Your task to perform on an android device: Open ESPN.com Image 0: 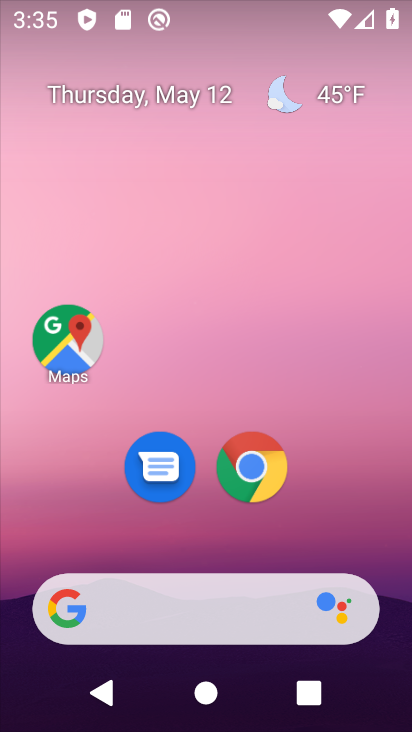
Step 0: click (273, 470)
Your task to perform on an android device: Open ESPN.com Image 1: 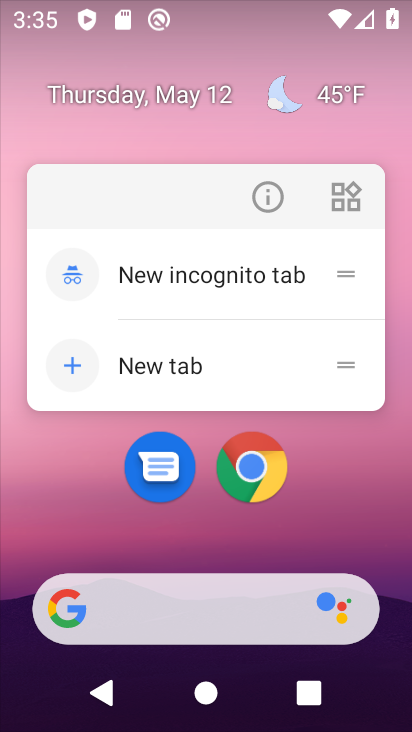
Step 1: click (269, 470)
Your task to perform on an android device: Open ESPN.com Image 2: 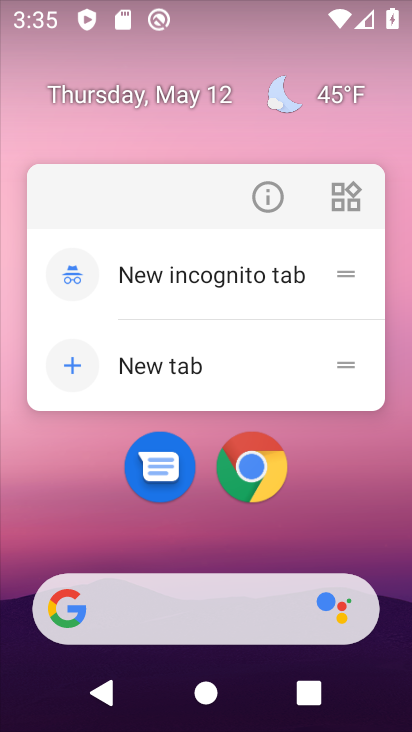
Step 2: click (258, 470)
Your task to perform on an android device: Open ESPN.com Image 3: 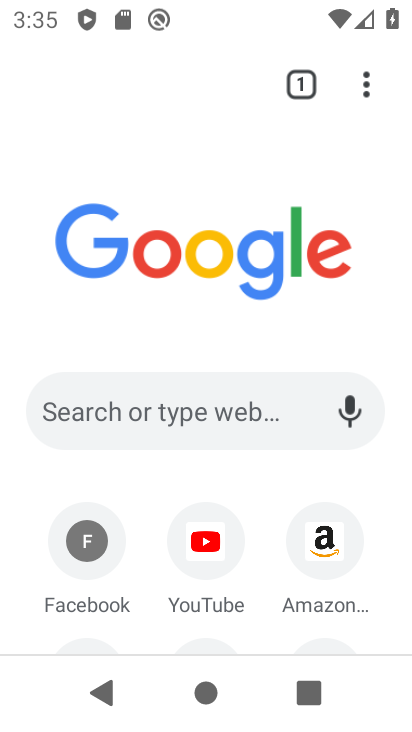
Step 3: drag from (143, 626) to (188, 457)
Your task to perform on an android device: Open ESPN.com Image 4: 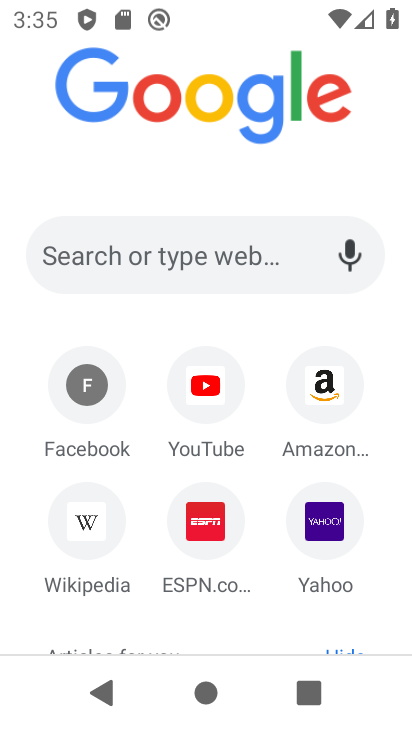
Step 4: click (222, 545)
Your task to perform on an android device: Open ESPN.com Image 5: 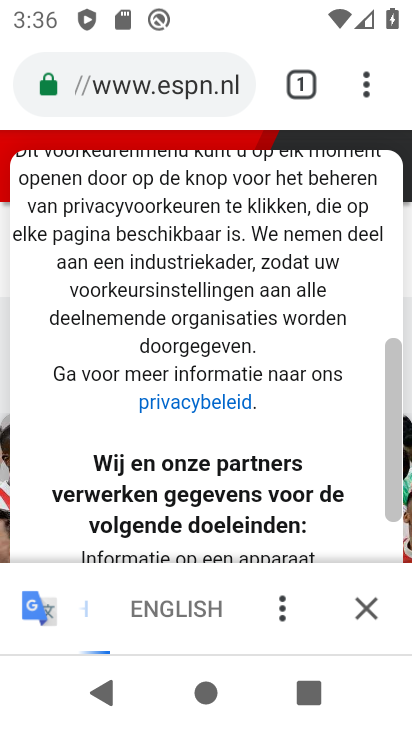
Step 5: task complete